Your task to perform on an android device: toggle show notifications on the lock screen Image 0: 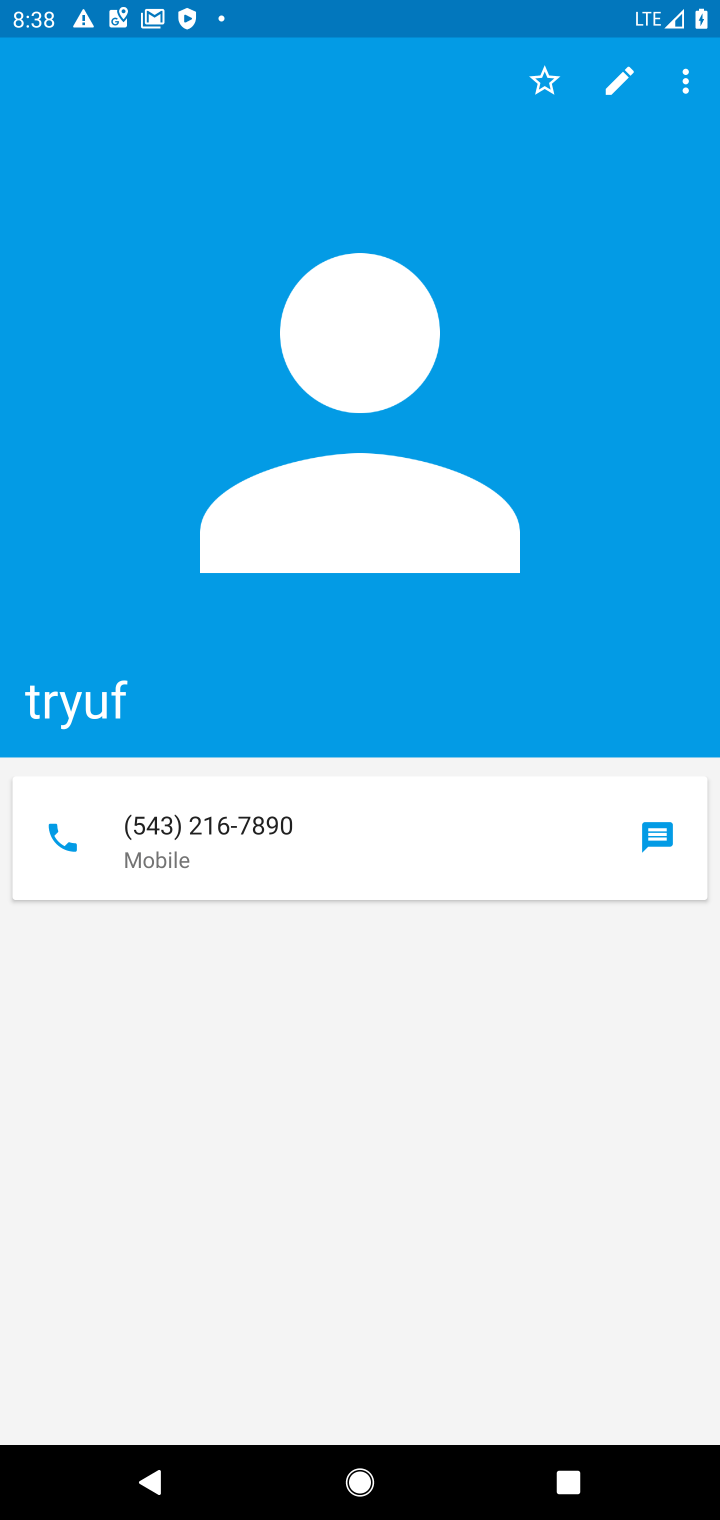
Step 0: press home button
Your task to perform on an android device: toggle show notifications on the lock screen Image 1: 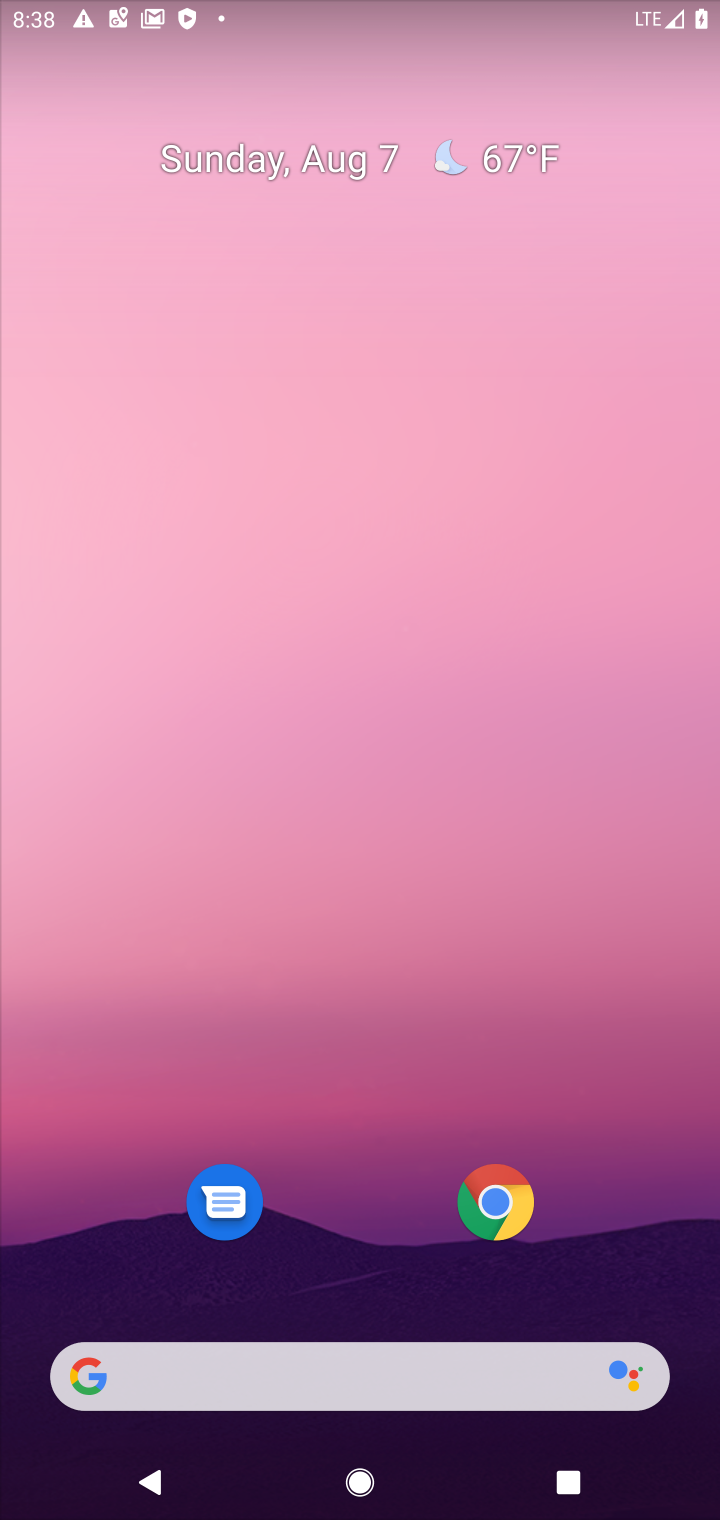
Step 1: drag from (325, 1297) to (294, 470)
Your task to perform on an android device: toggle show notifications on the lock screen Image 2: 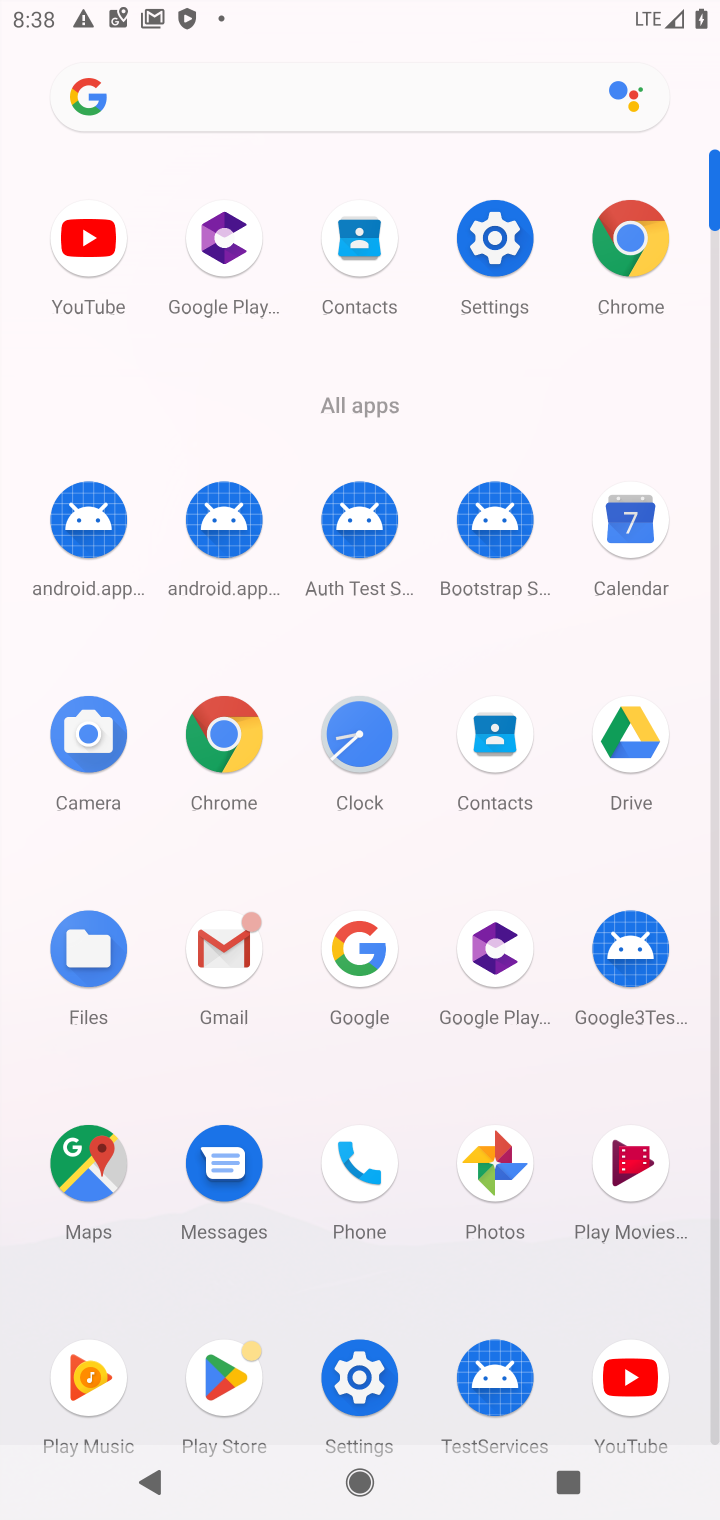
Step 2: click (465, 253)
Your task to perform on an android device: toggle show notifications on the lock screen Image 3: 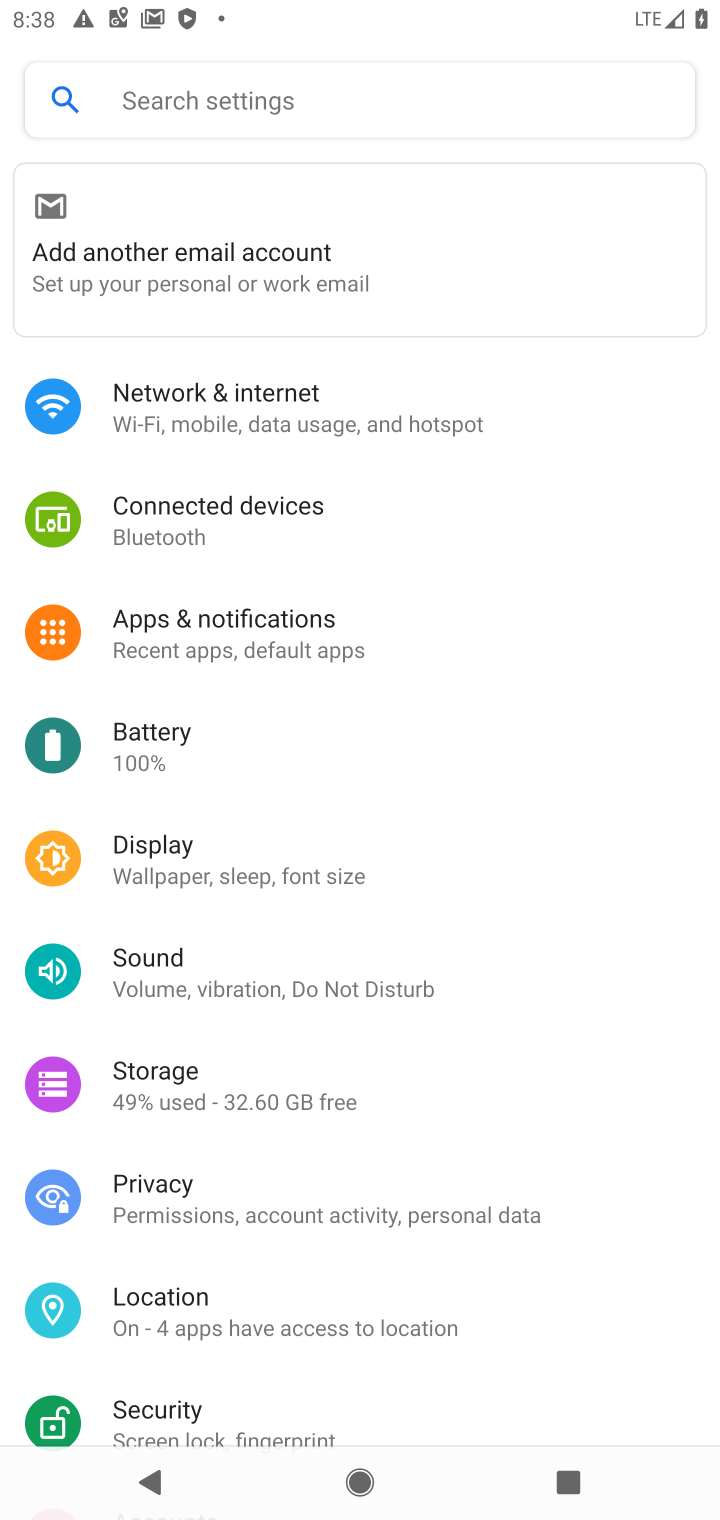
Step 3: click (260, 627)
Your task to perform on an android device: toggle show notifications on the lock screen Image 4: 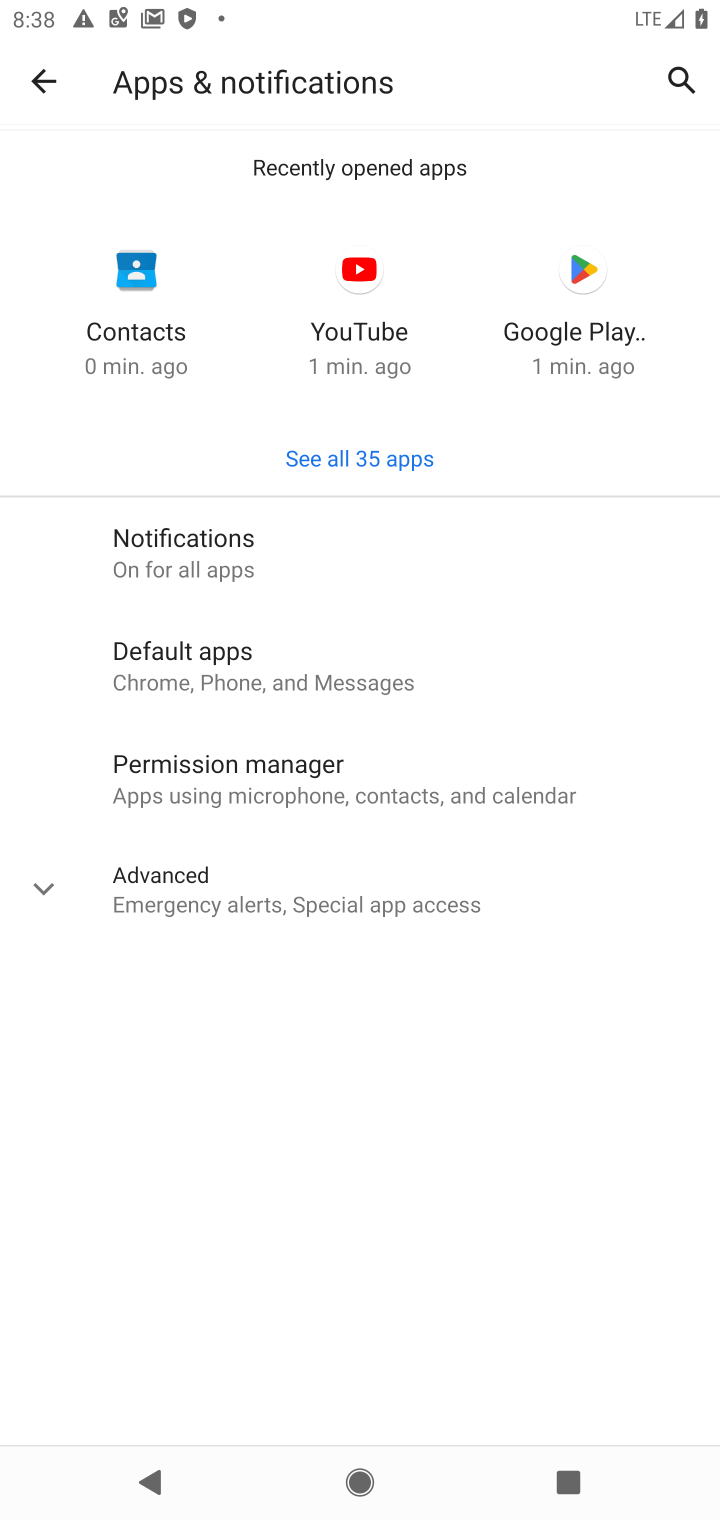
Step 4: click (238, 572)
Your task to perform on an android device: toggle show notifications on the lock screen Image 5: 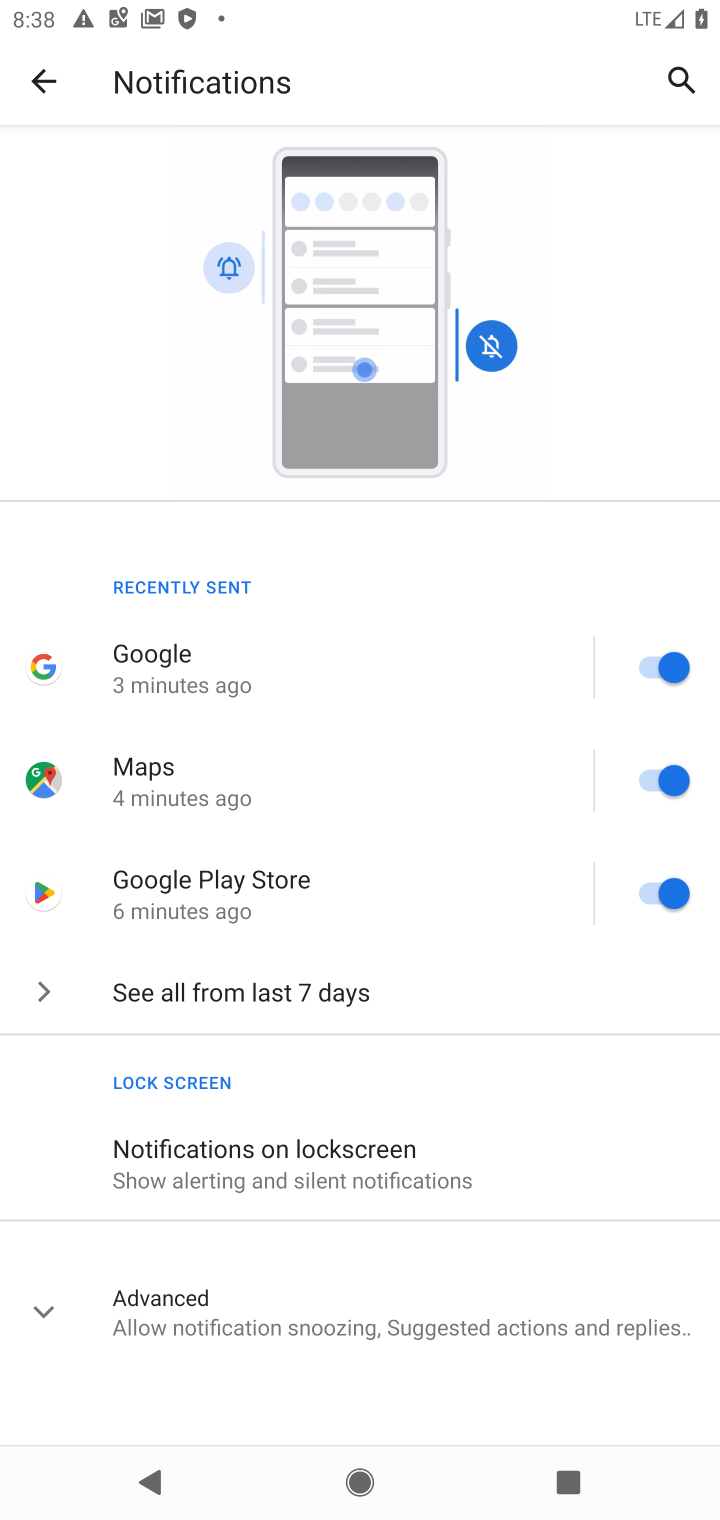
Step 5: click (232, 1172)
Your task to perform on an android device: toggle show notifications on the lock screen Image 6: 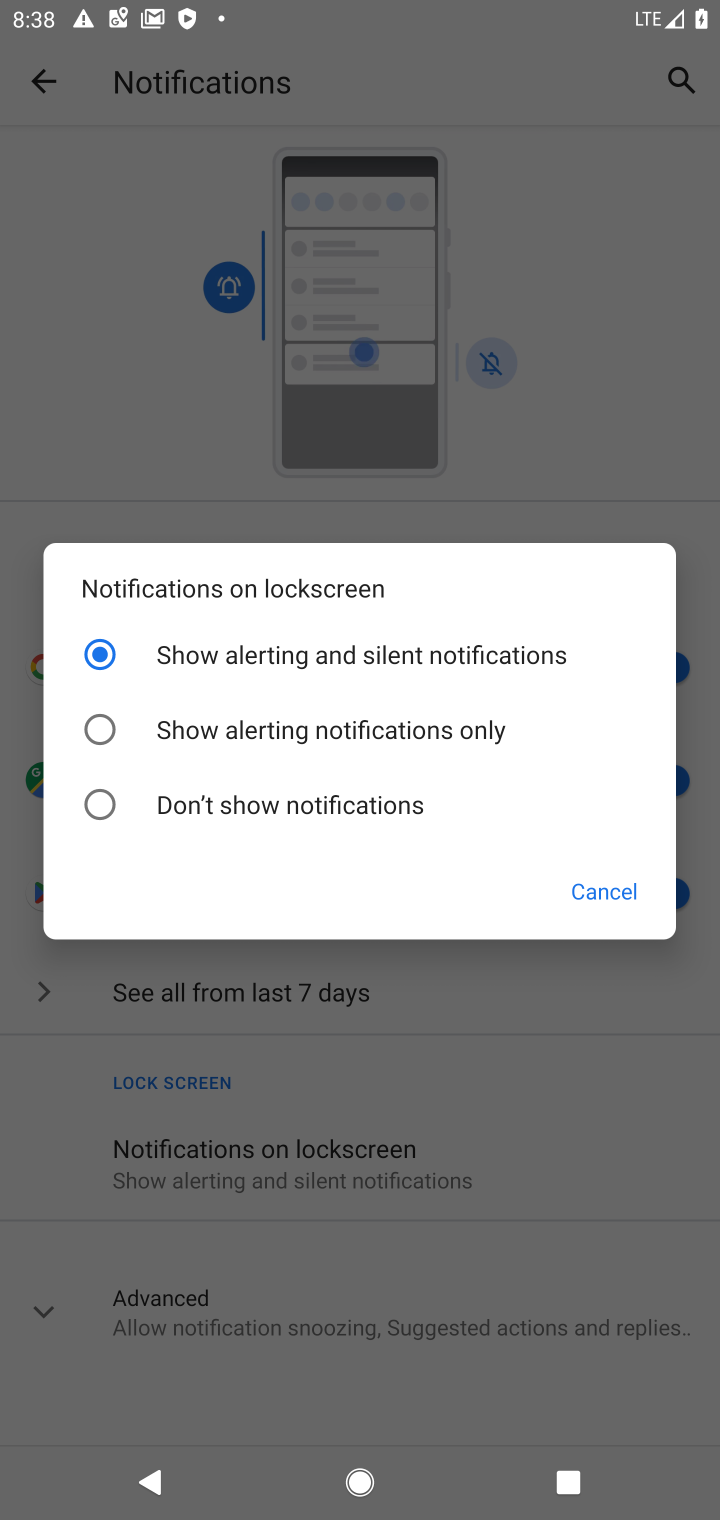
Step 6: click (298, 724)
Your task to perform on an android device: toggle show notifications on the lock screen Image 7: 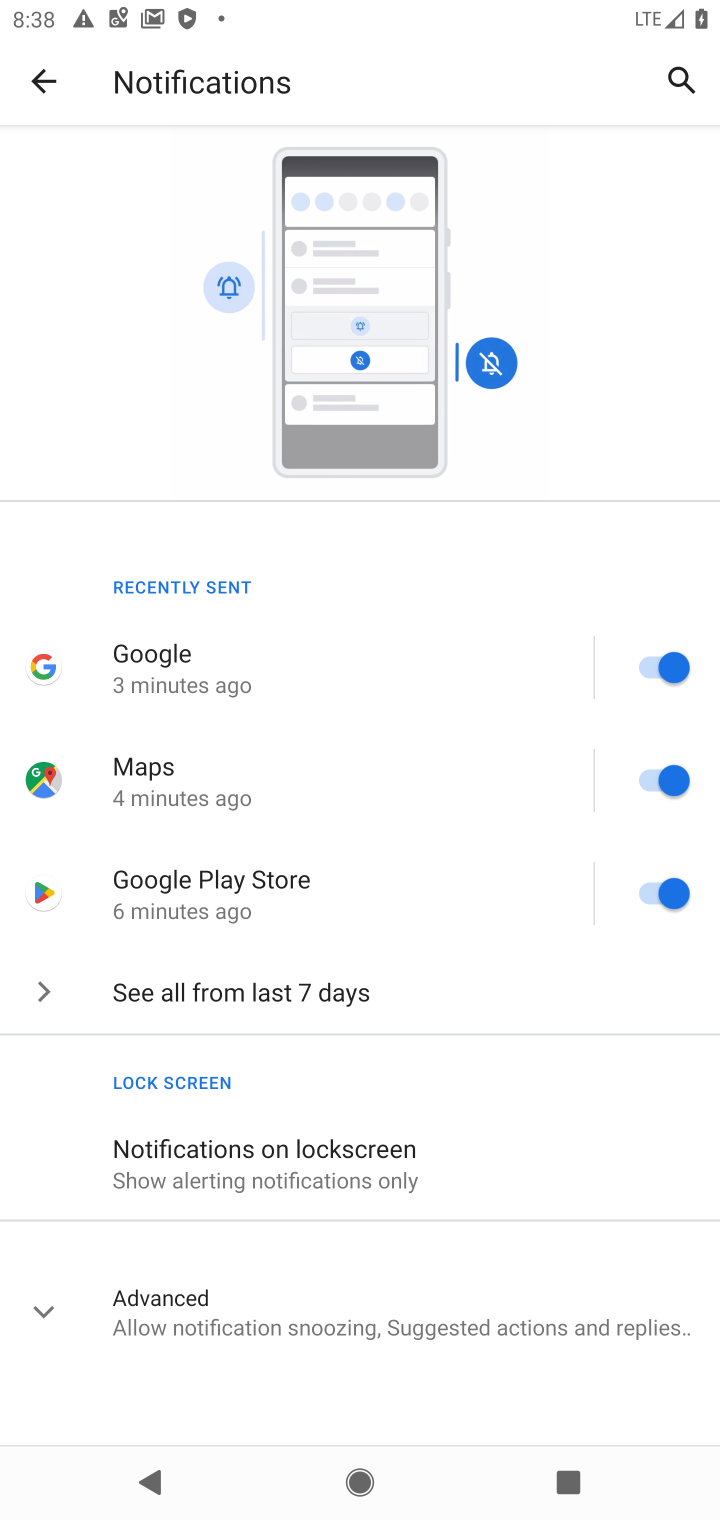
Step 7: task complete